Your task to perform on an android device: turn off javascript in the chrome app Image 0: 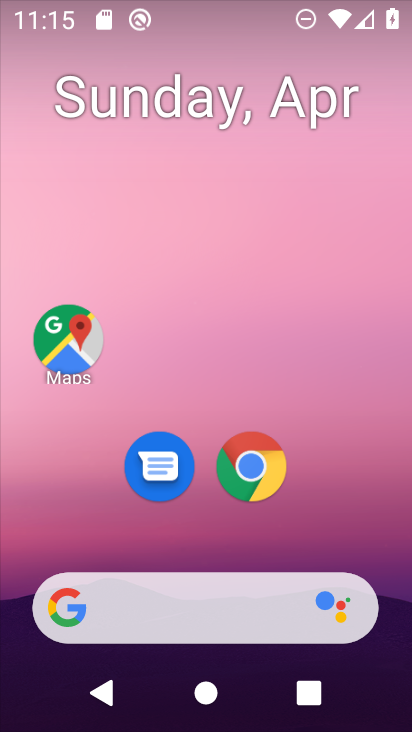
Step 0: drag from (364, 518) to (369, 90)
Your task to perform on an android device: turn off javascript in the chrome app Image 1: 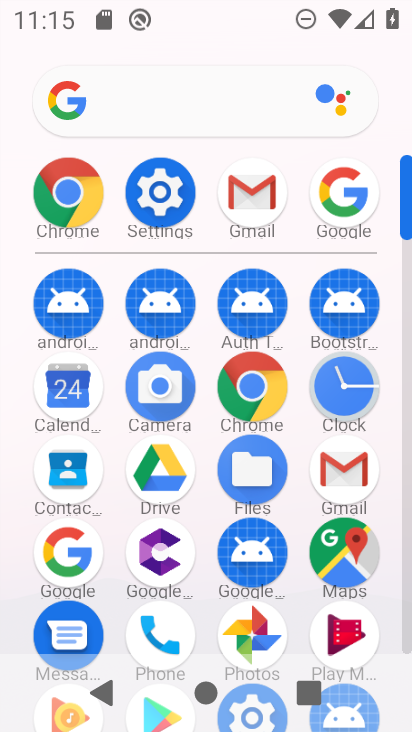
Step 1: click (241, 399)
Your task to perform on an android device: turn off javascript in the chrome app Image 2: 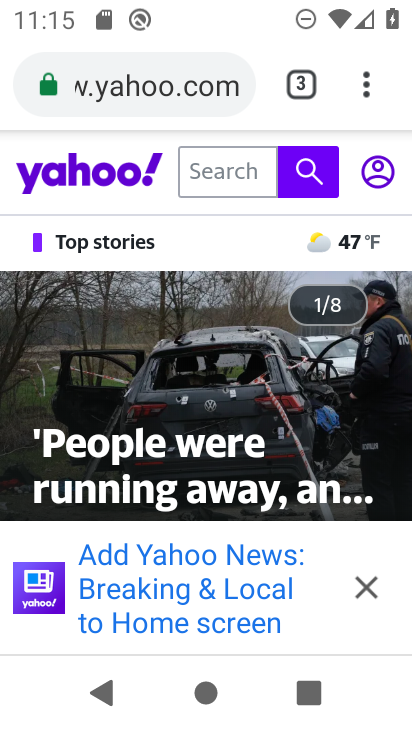
Step 2: click (366, 72)
Your task to perform on an android device: turn off javascript in the chrome app Image 3: 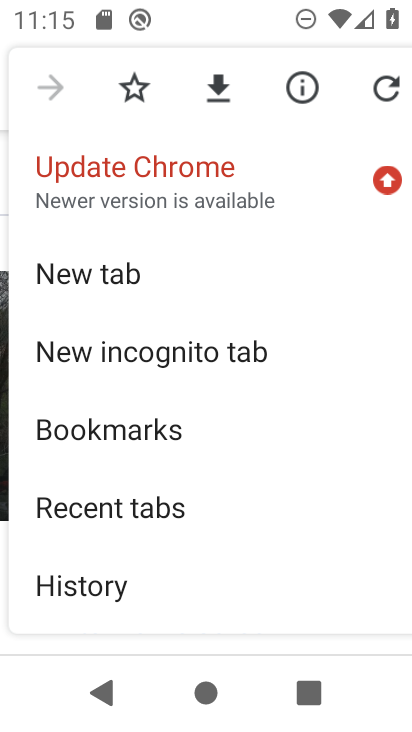
Step 3: drag from (323, 553) to (327, 395)
Your task to perform on an android device: turn off javascript in the chrome app Image 4: 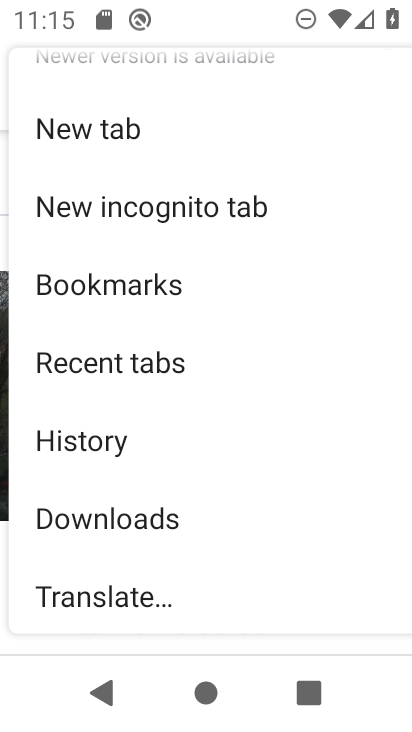
Step 4: drag from (308, 554) to (326, 226)
Your task to perform on an android device: turn off javascript in the chrome app Image 5: 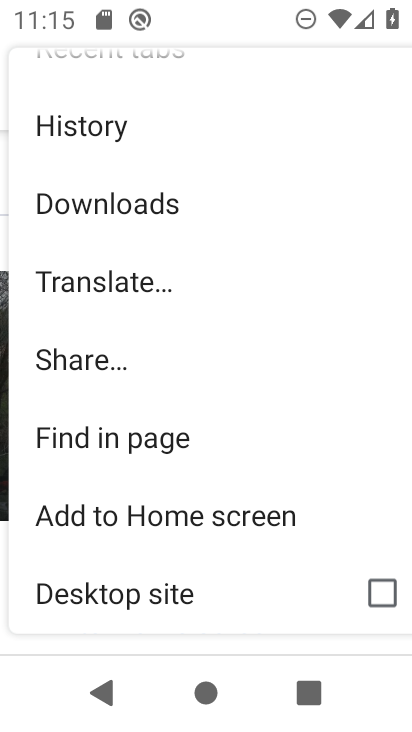
Step 5: drag from (305, 563) to (312, 309)
Your task to perform on an android device: turn off javascript in the chrome app Image 6: 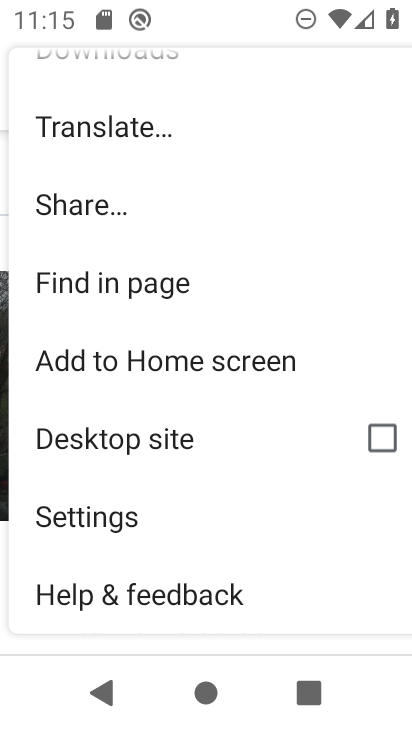
Step 6: click (115, 521)
Your task to perform on an android device: turn off javascript in the chrome app Image 7: 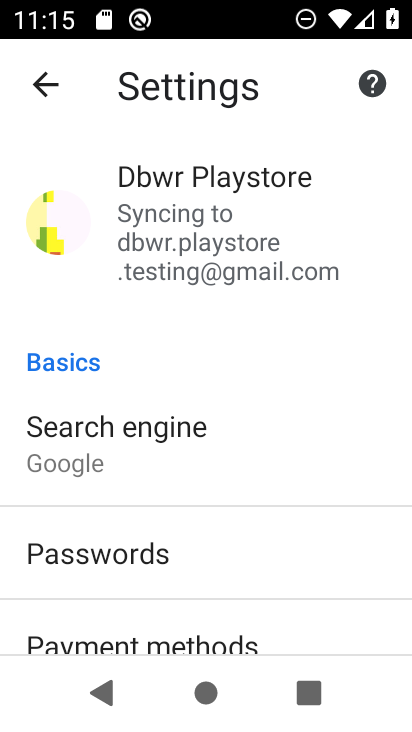
Step 7: drag from (304, 568) to (325, 363)
Your task to perform on an android device: turn off javascript in the chrome app Image 8: 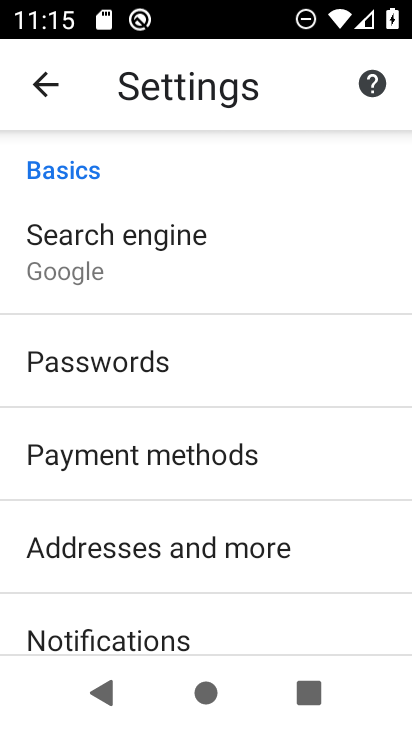
Step 8: drag from (311, 610) to (317, 438)
Your task to perform on an android device: turn off javascript in the chrome app Image 9: 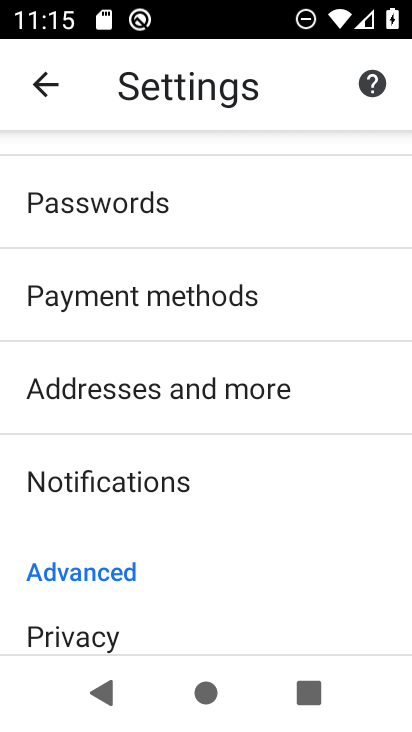
Step 9: drag from (304, 601) to (336, 379)
Your task to perform on an android device: turn off javascript in the chrome app Image 10: 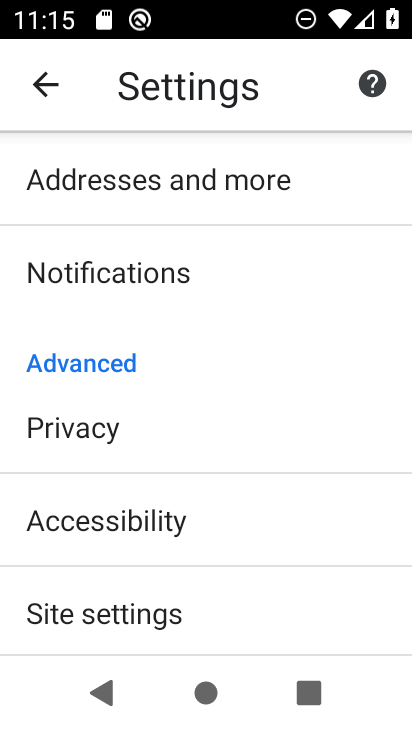
Step 10: drag from (332, 579) to (327, 427)
Your task to perform on an android device: turn off javascript in the chrome app Image 11: 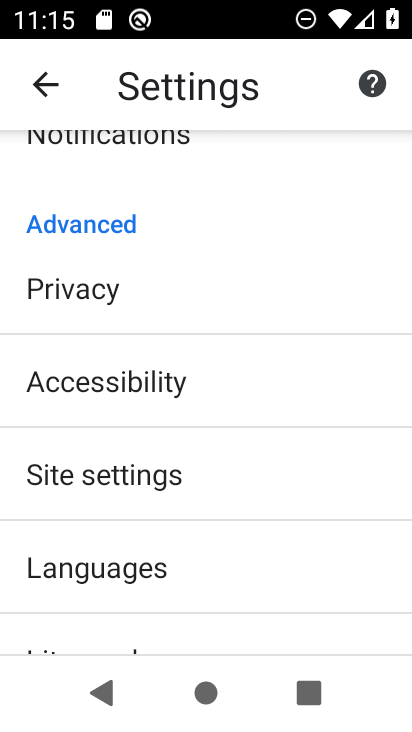
Step 11: drag from (286, 524) to (289, 416)
Your task to perform on an android device: turn off javascript in the chrome app Image 12: 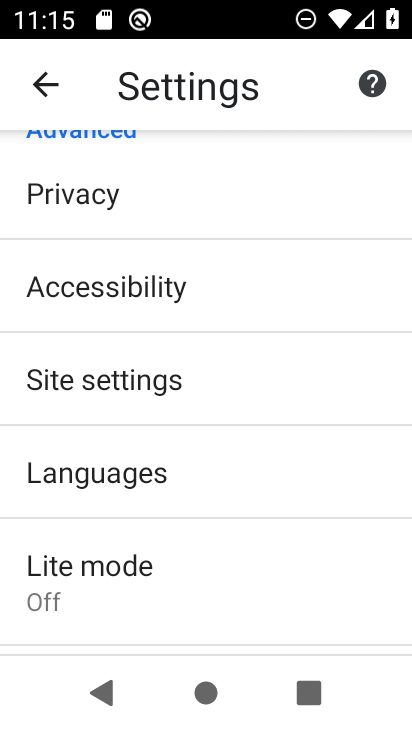
Step 12: click (230, 367)
Your task to perform on an android device: turn off javascript in the chrome app Image 13: 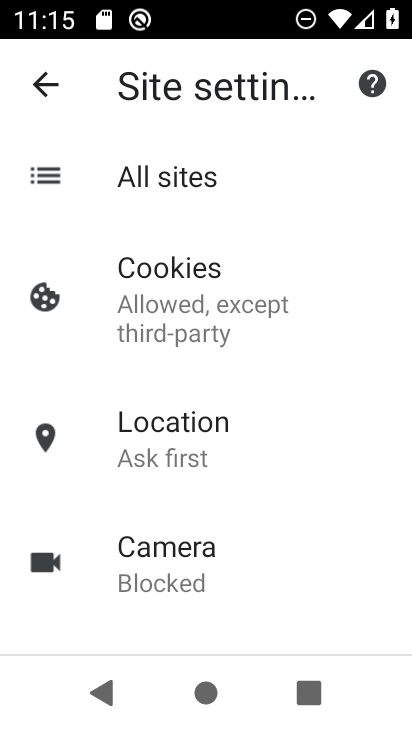
Step 13: drag from (304, 561) to (322, 299)
Your task to perform on an android device: turn off javascript in the chrome app Image 14: 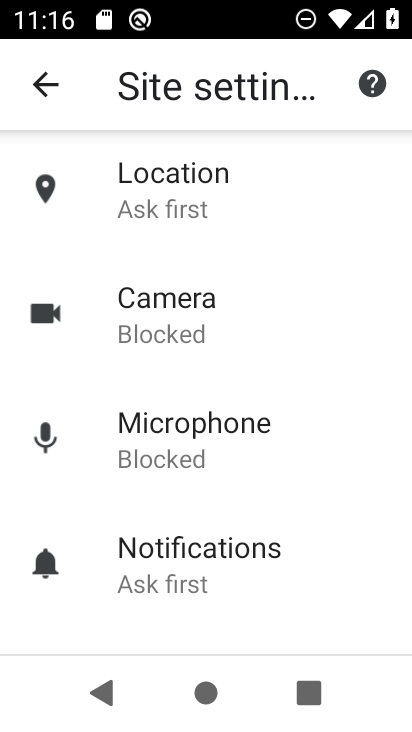
Step 14: drag from (339, 539) to (348, 302)
Your task to perform on an android device: turn off javascript in the chrome app Image 15: 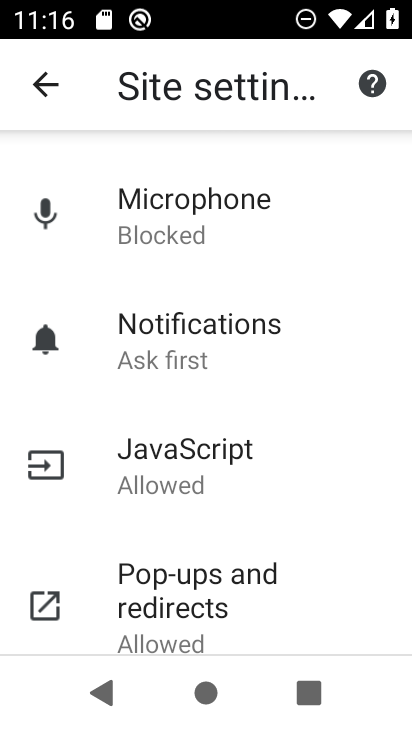
Step 15: click (172, 477)
Your task to perform on an android device: turn off javascript in the chrome app Image 16: 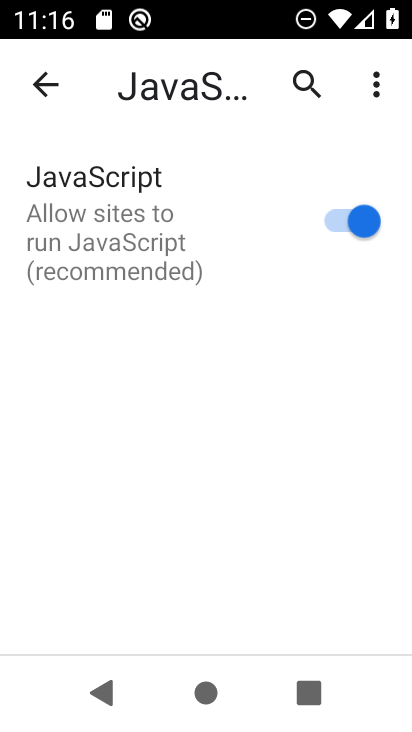
Step 16: click (364, 231)
Your task to perform on an android device: turn off javascript in the chrome app Image 17: 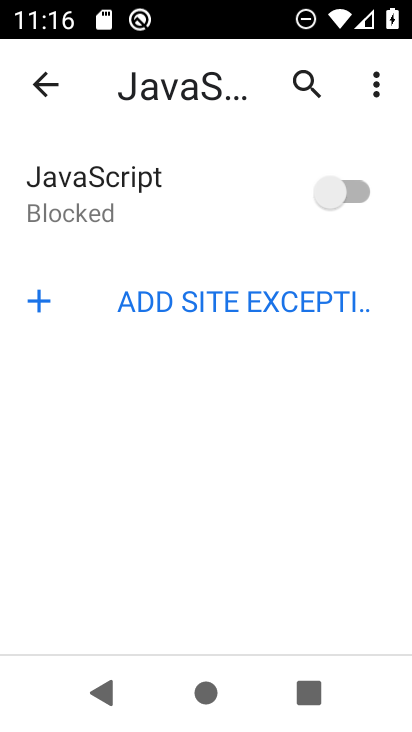
Step 17: task complete